Your task to perform on an android device: star an email in the gmail app Image 0: 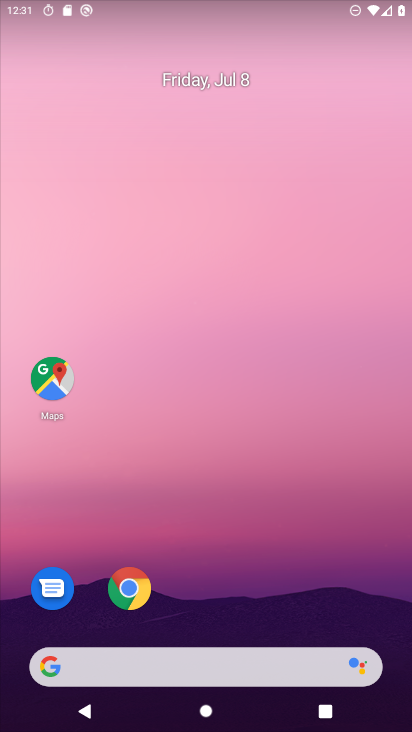
Step 0: drag from (285, 587) to (301, 123)
Your task to perform on an android device: star an email in the gmail app Image 1: 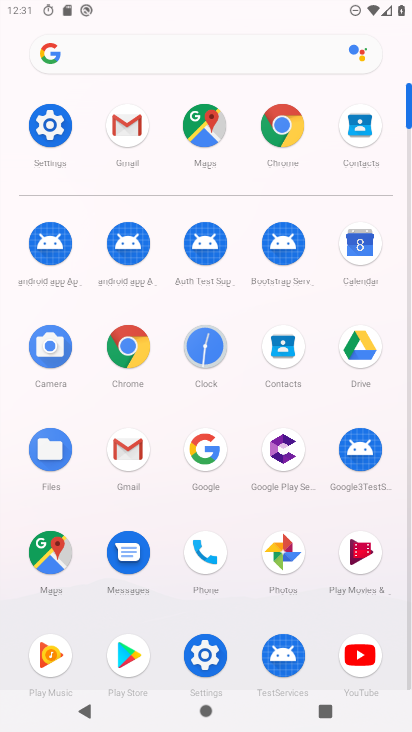
Step 1: click (133, 127)
Your task to perform on an android device: star an email in the gmail app Image 2: 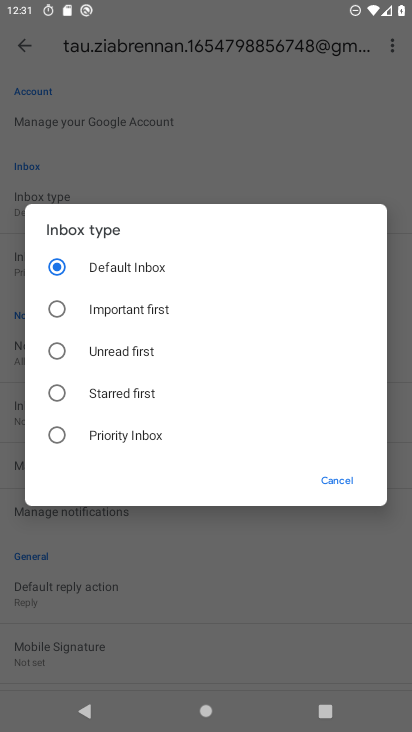
Step 2: click (337, 477)
Your task to perform on an android device: star an email in the gmail app Image 3: 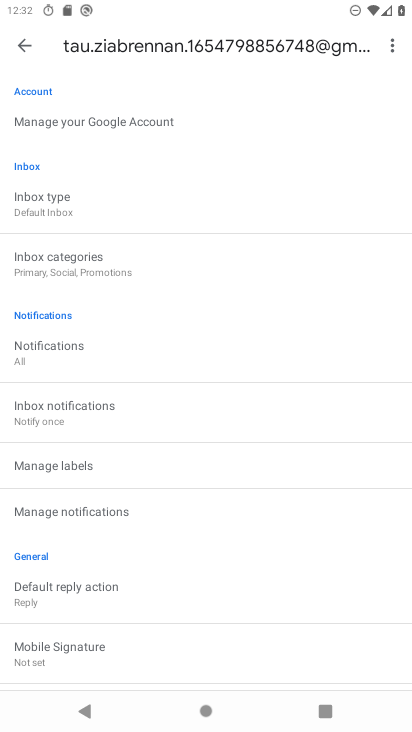
Step 3: click (20, 44)
Your task to perform on an android device: star an email in the gmail app Image 4: 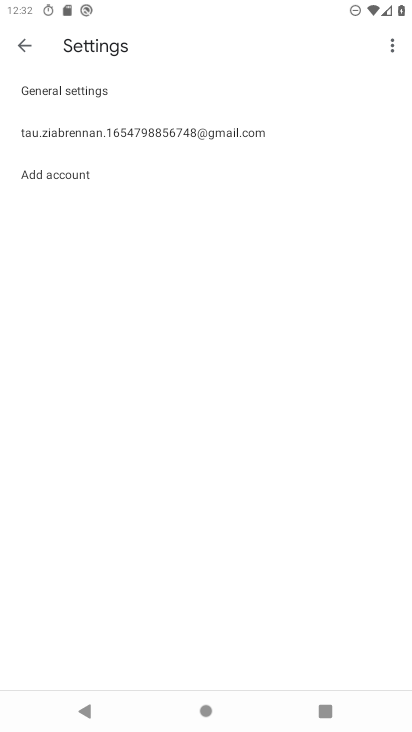
Step 4: click (28, 43)
Your task to perform on an android device: star an email in the gmail app Image 5: 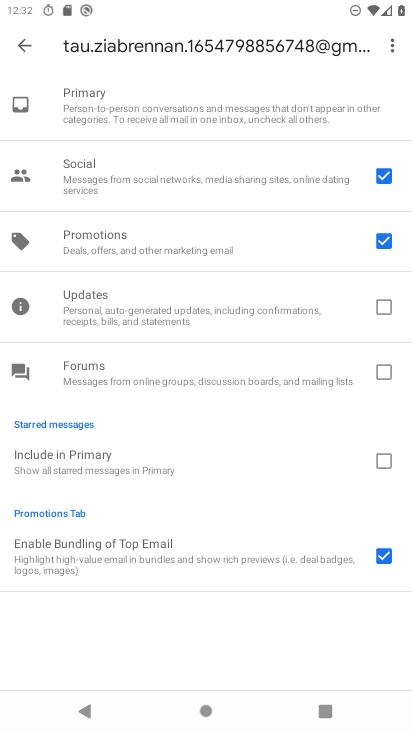
Step 5: click (27, 44)
Your task to perform on an android device: star an email in the gmail app Image 6: 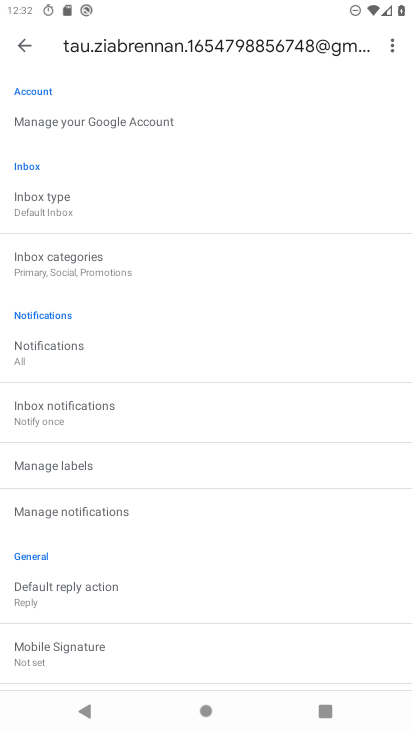
Step 6: click (25, 44)
Your task to perform on an android device: star an email in the gmail app Image 7: 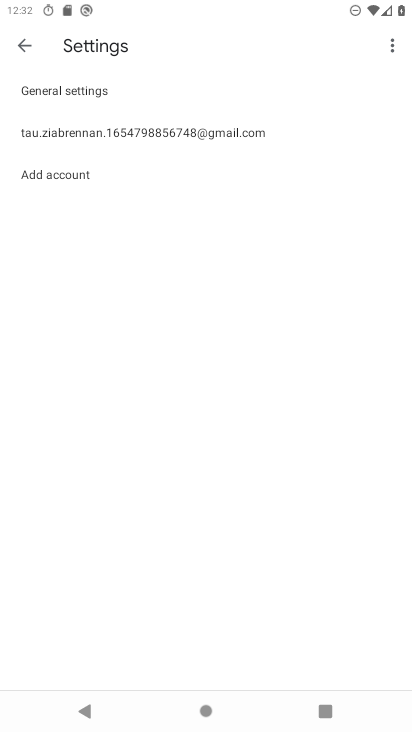
Step 7: click (25, 44)
Your task to perform on an android device: star an email in the gmail app Image 8: 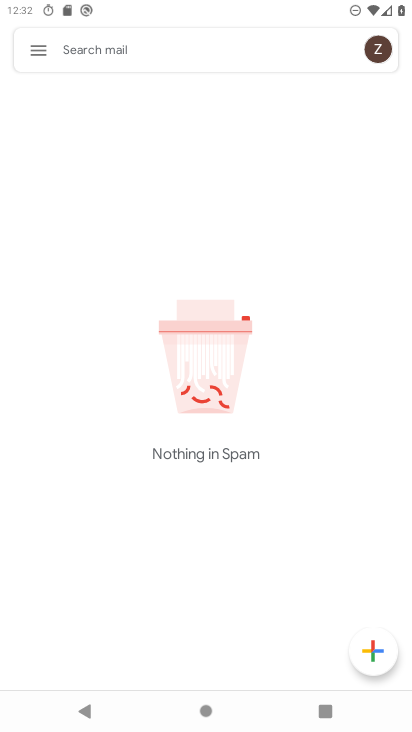
Step 8: click (25, 44)
Your task to perform on an android device: star an email in the gmail app Image 9: 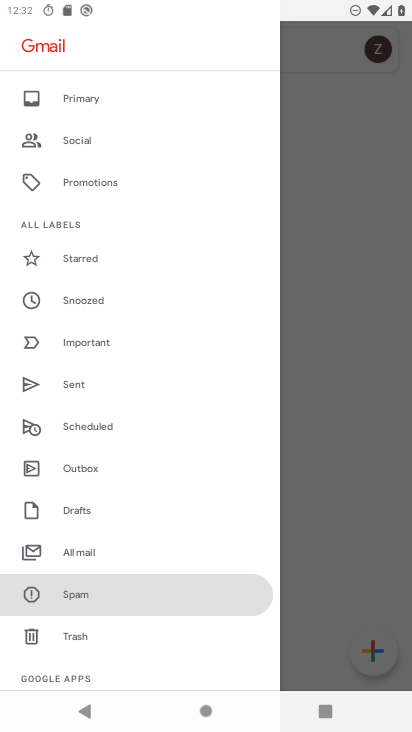
Step 9: click (78, 545)
Your task to perform on an android device: star an email in the gmail app Image 10: 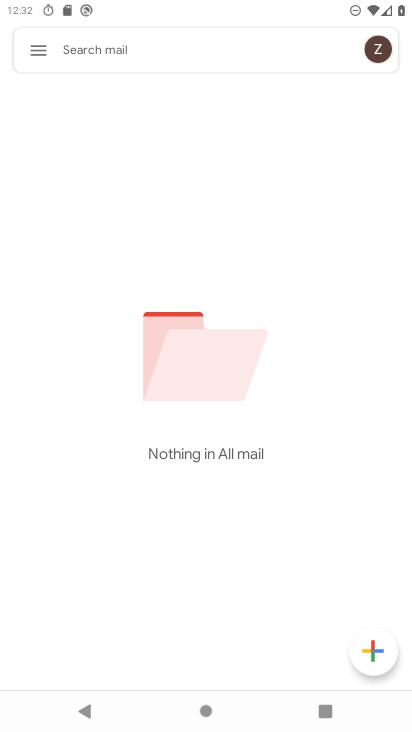
Step 10: task complete